Your task to perform on an android device: Show me popular games on the Play Store Image 0: 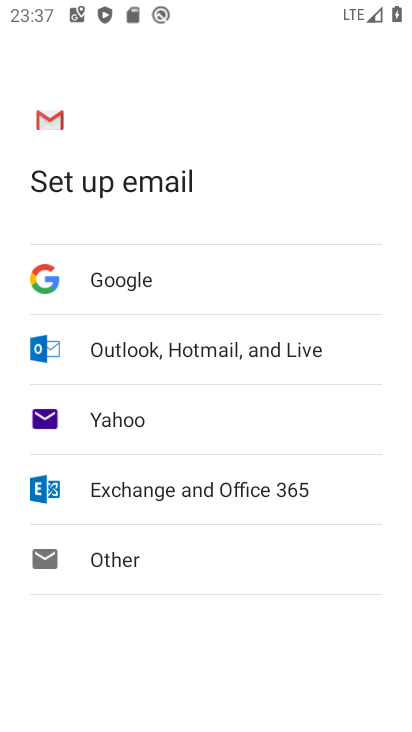
Step 0: press home button
Your task to perform on an android device: Show me popular games on the Play Store Image 1: 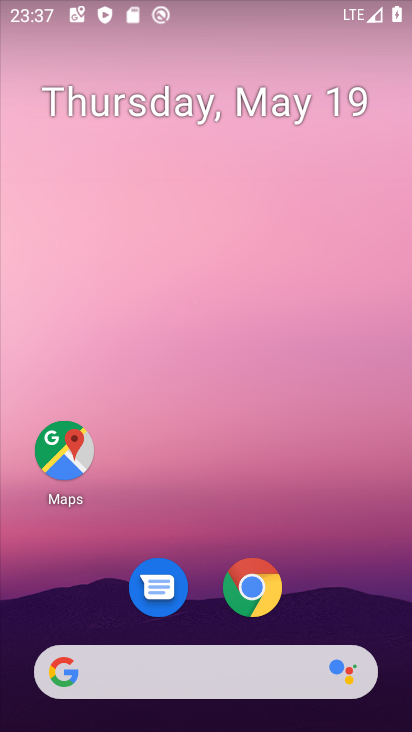
Step 1: drag from (219, 693) to (163, 295)
Your task to perform on an android device: Show me popular games on the Play Store Image 2: 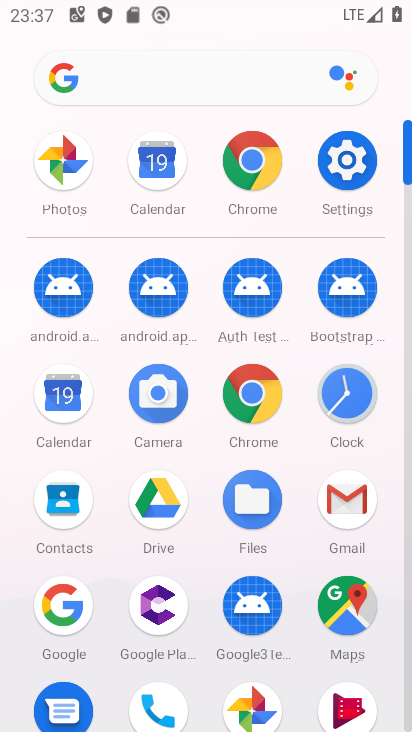
Step 2: drag from (197, 554) to (192, 449)
Your task to perform on an android device: Show me popular games on the Play Store Image 3: 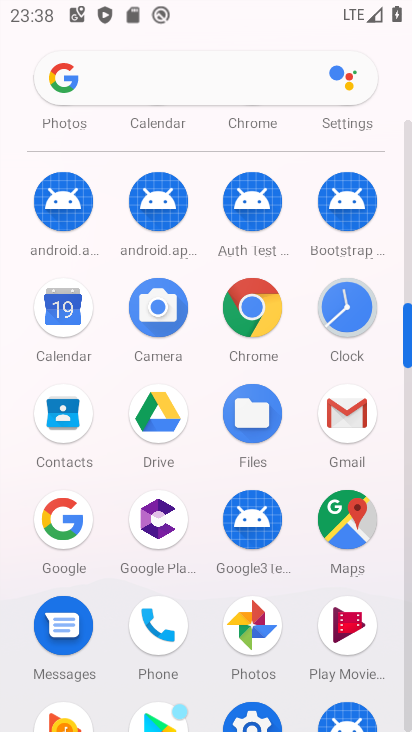
Step 3: click (161, 706)
Your task to perform on an android device: Show me popular games on the Play Store Image 4: 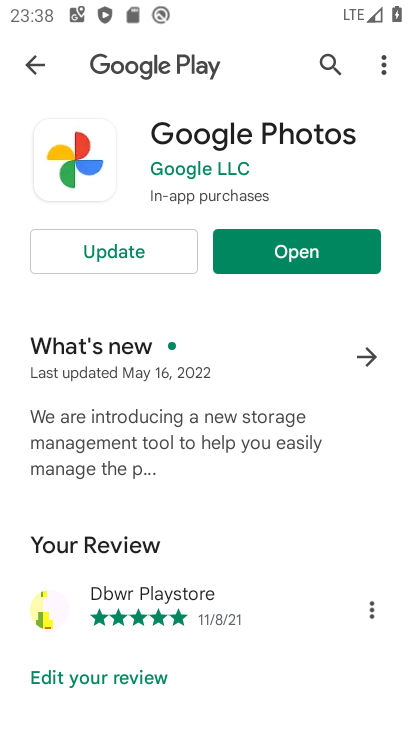
Step 4: click (325, 64)
Your task to perform on an android device: Show me popular games on the Play Store Image 5: 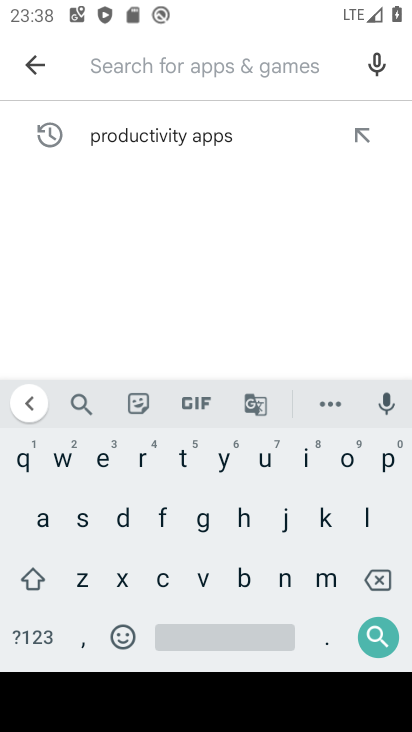
Step 5: click (128, 61)
Your task to perform on an android device: Show me popular games on the Play Store Image 6: 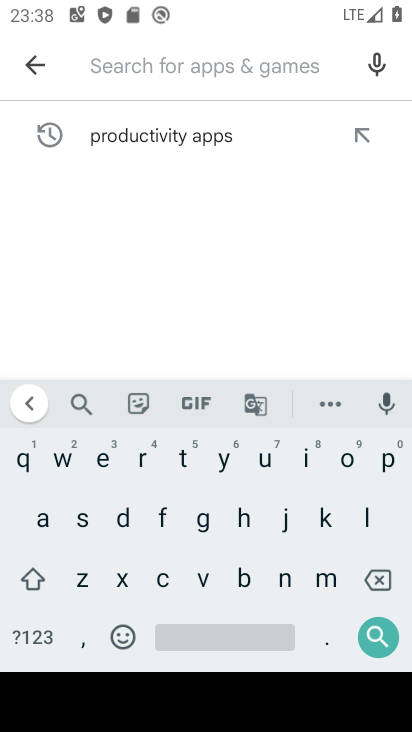
Step 6: click (381, 471)
Your task to perform on an android device: Show me popular games on the Play Store Image 7: 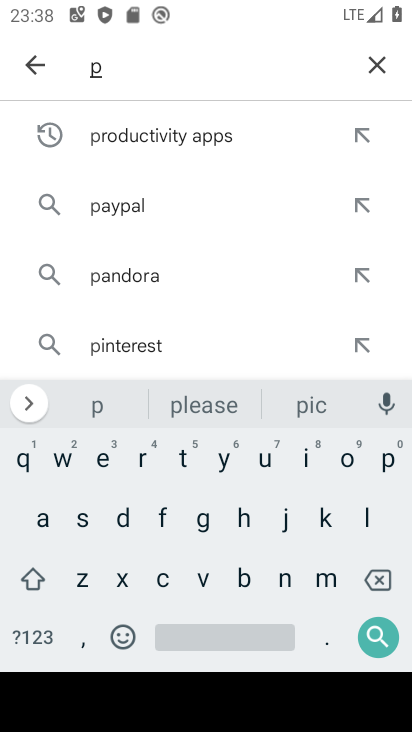
Step 7: click (349, 460)
Your task to perform on an android device: Show me popular games on the Play Store Image 8: 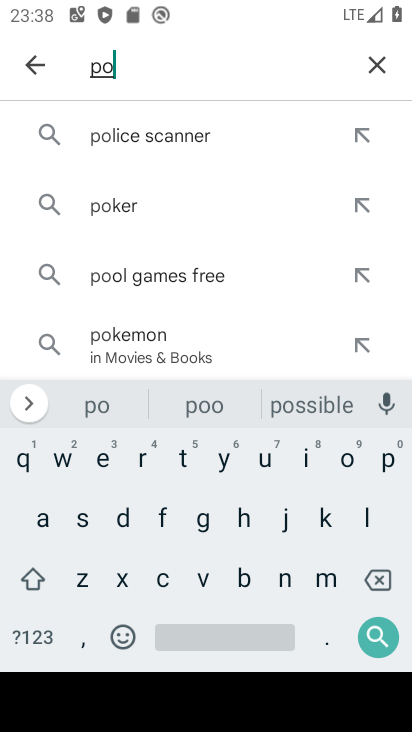
Step 8: click (381, 459)
Your task to perform on an android device: Show me popular games on the Play Store Image 9: 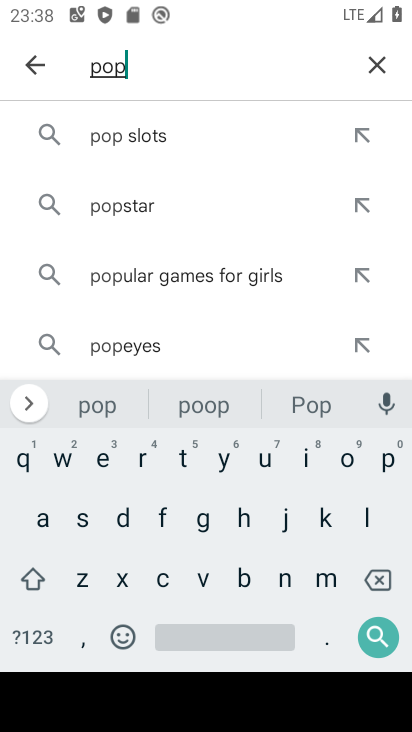
Step 9: click (270, 466)
Your task to perform on an android device: Show me popular games on the Play Store Image 10: 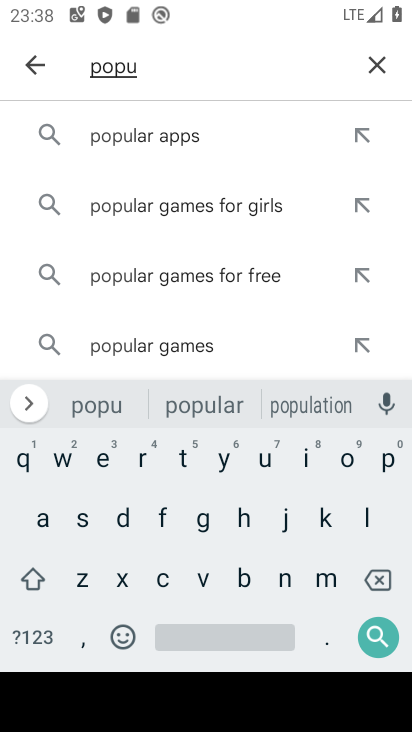
Step 10: click (173, 354)
Your task to perform on an android device: Show me popular games on the Play Store Image 11: 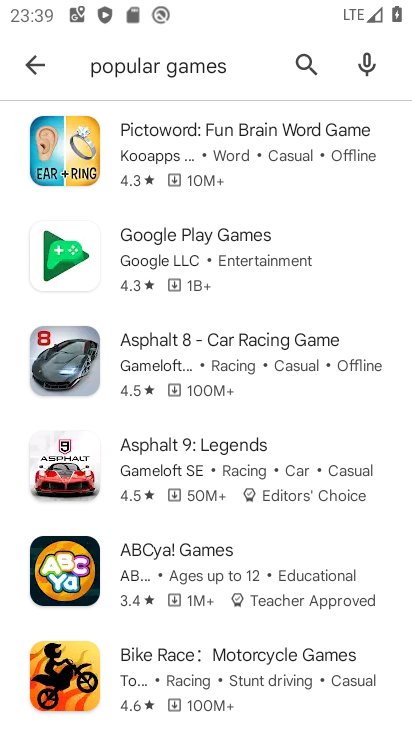
Step 11: task complete